Your task to perform on an android device: turn off location Image 0: 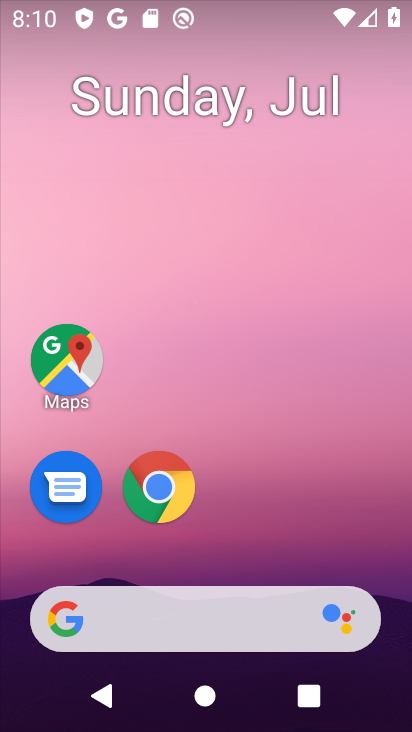
Step 0: drag from (253, 485) to (230, 12)
Your task to perform on an android device: turn off location Image 1: 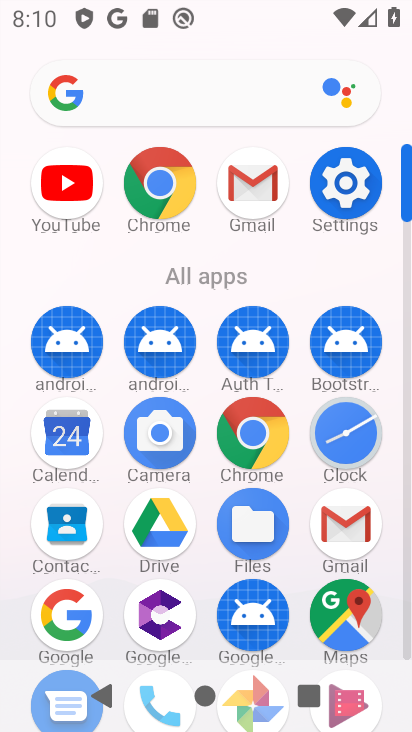
Step 1: click (343, 183)
Your task to perform on an android device: turn off location Image 2: 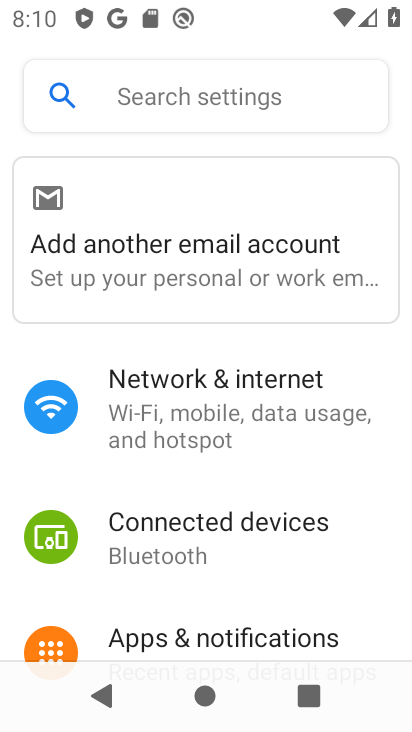
Step 2: drag from (207, 594) to (287, 43)
Your task to perform on an android device: turn off location Image 3: 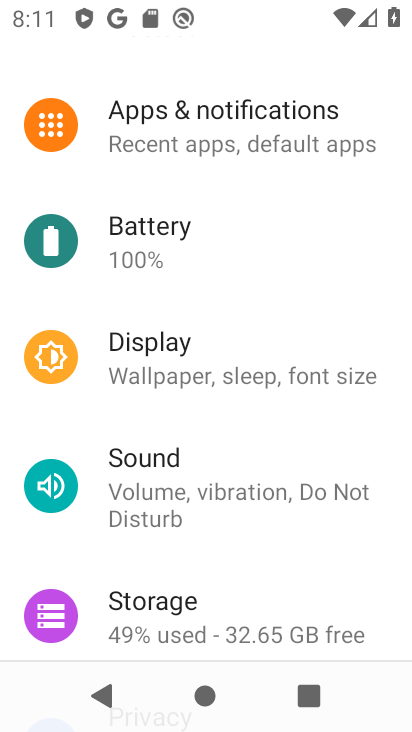
Step 3: drag from (170, 572) to (241, 180)
Your task to perform on an android device: turn off location Image 4: 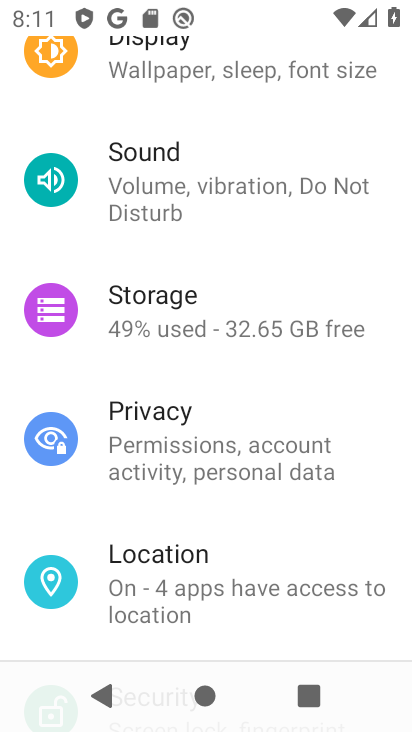
Step 4: click (178, 573)
Your task to perform on an android device: turn off location Image 5: 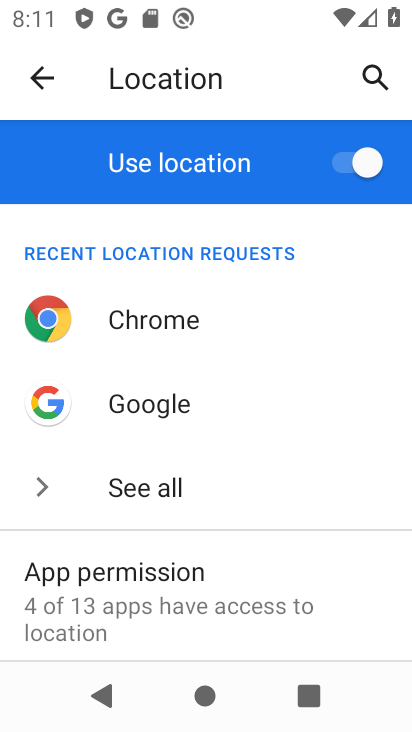
Step 5: click (391, 154)
Your task to perform on an android device: turn off location Image 6: 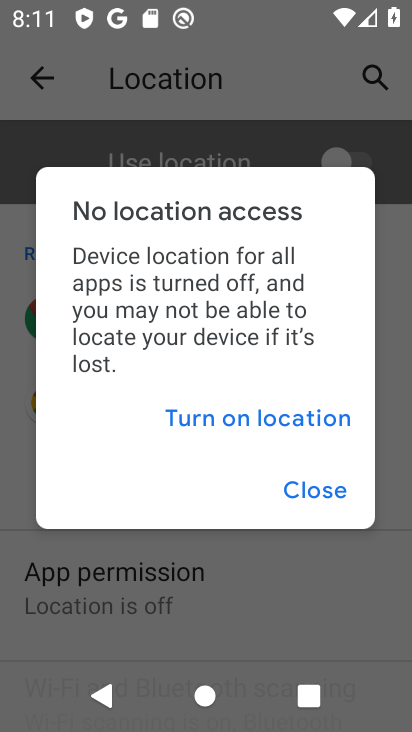
Step 6: task complete